Your task to perform on an android device: What are the new products by Samsung? Image 0: 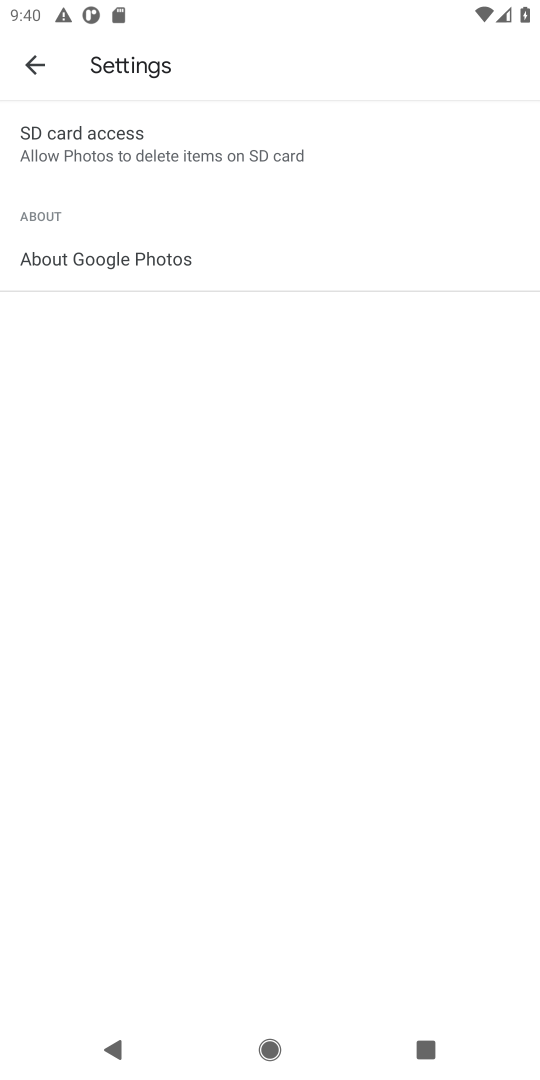
Step 0: type "What are the new products by Samsung?"
Your task to perform on an android device: What are the new products by Samsung? Image 1: 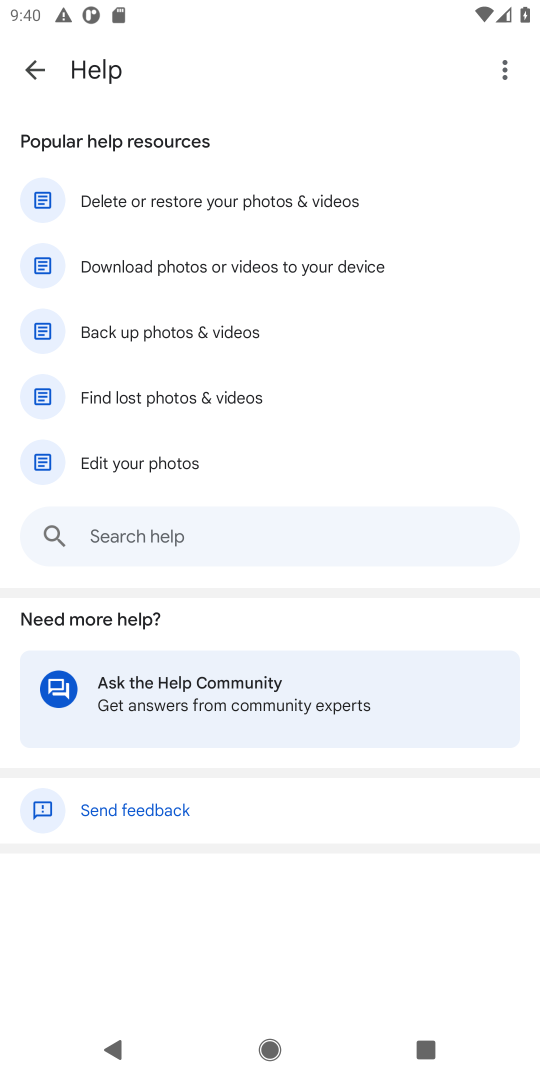
Step 1: type ""
Your task to perform on an android device: What are the new products by Samsung? Image 2: 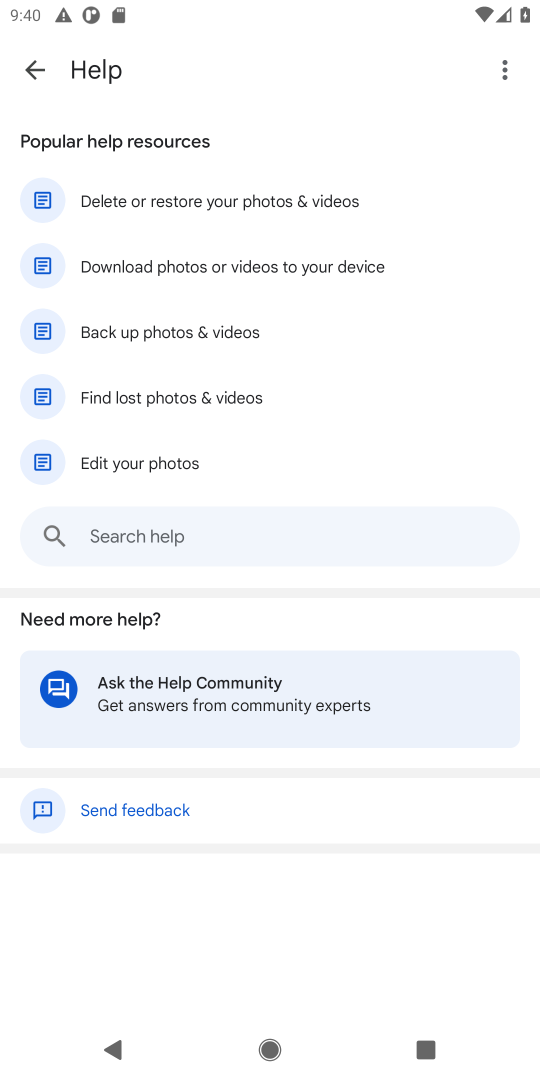
Step 2: press home button
Your task to perform on an android device: What are the new products by Samsung? Image 3: 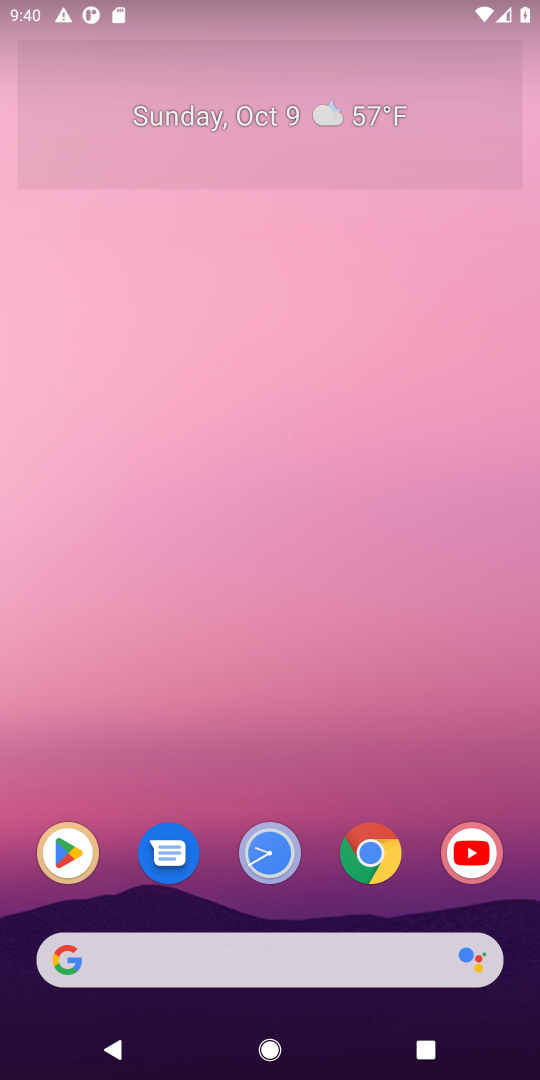
Step 3: click (217, 953)
Your task to perform on an android device: What are the new products by Samsung? Image 4: 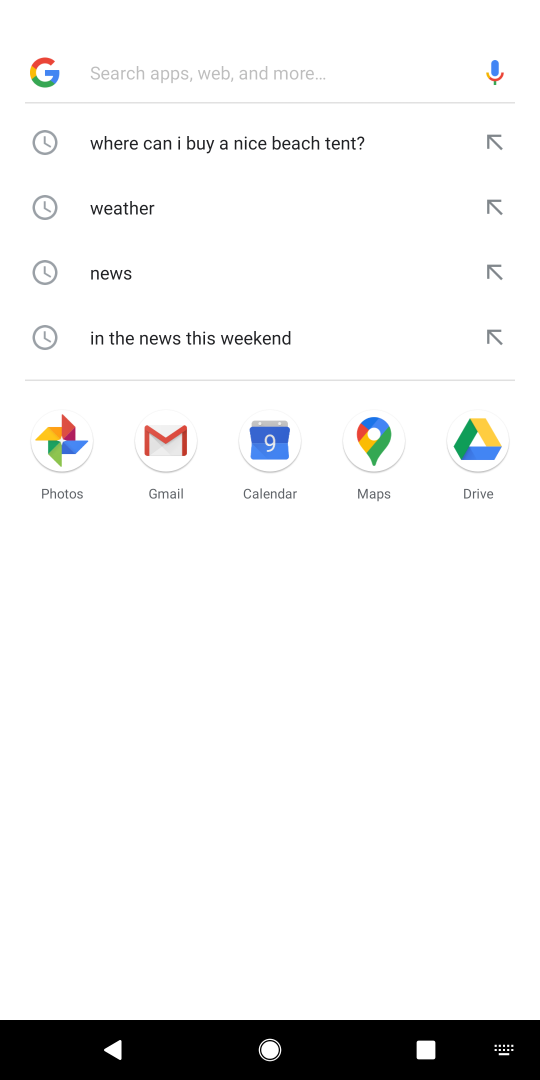
Step 4: type "What are the new products by Samsung?"
Your task to perform on an android device: What are the new products by Samsung? Image 5: 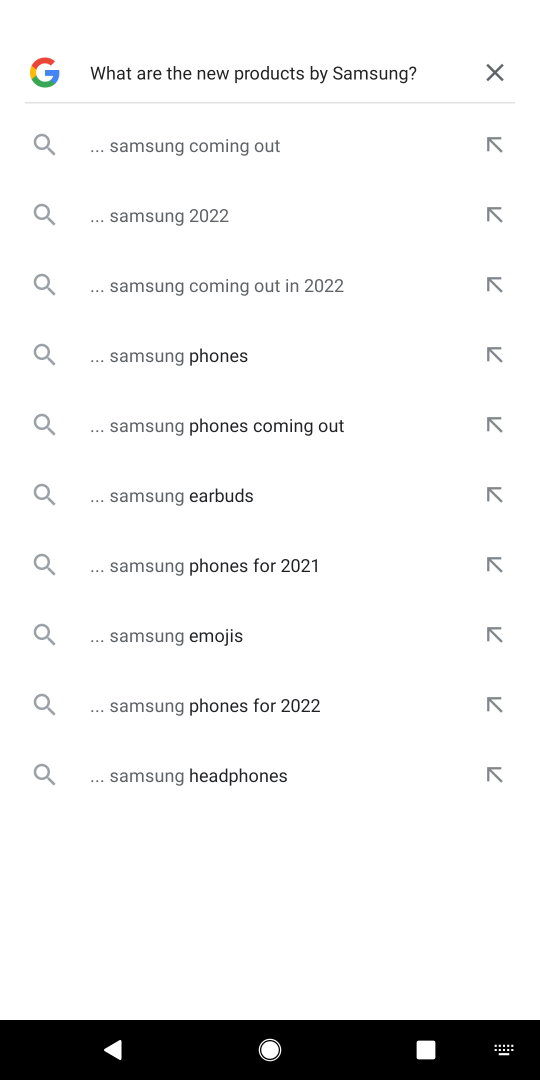
Step 5: type ""
Your task to perform on an android device: What are the new products by Samsung? Image 6: 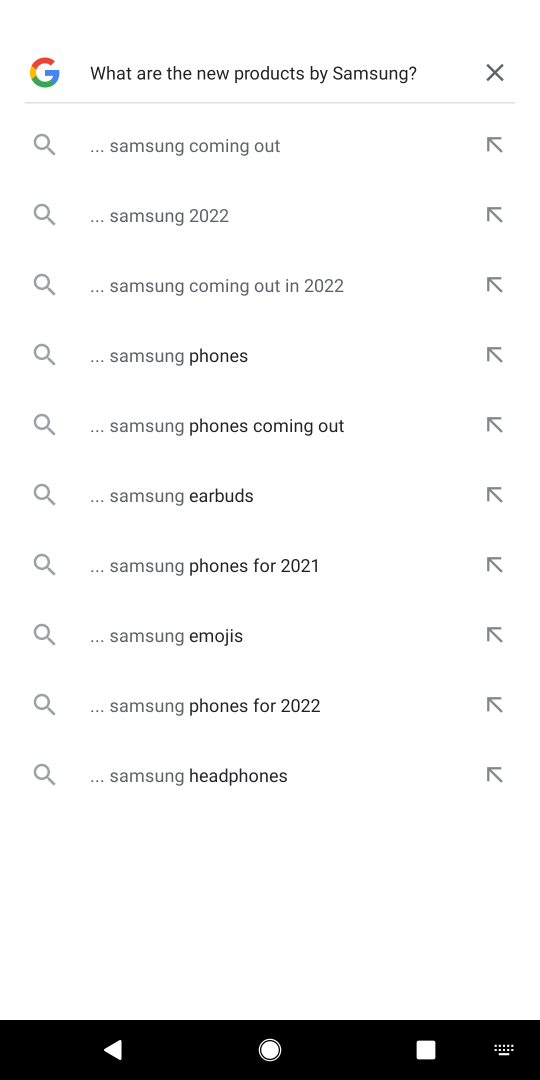
Step 6: press enter
Your task to perform on an android device: What are the new products by Samsung? Image 7: 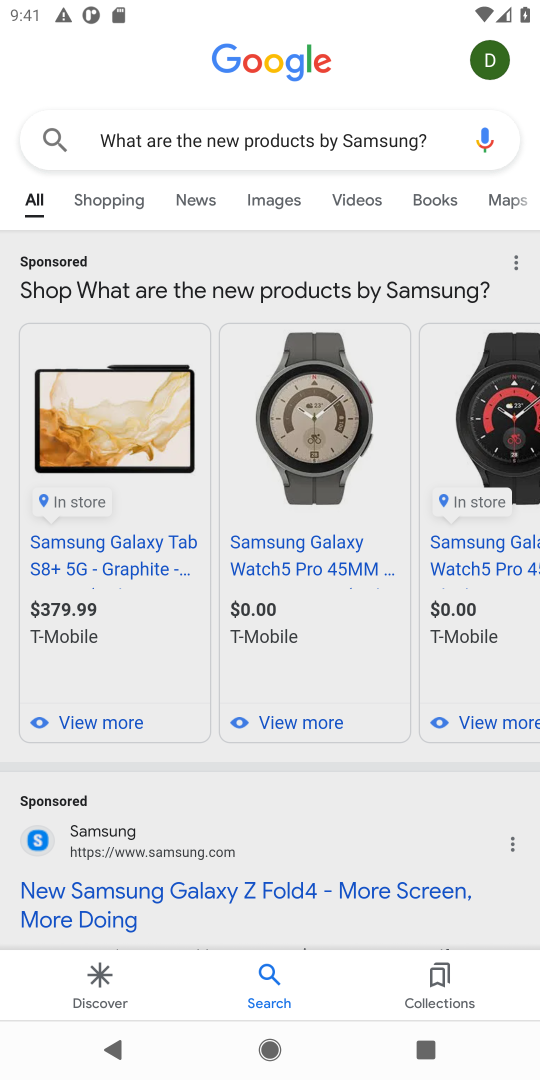
Step 7: drag from (312, 778) to (310, 218)
Your task to perform on an android device: What are the new products by Samsung? Image 8: 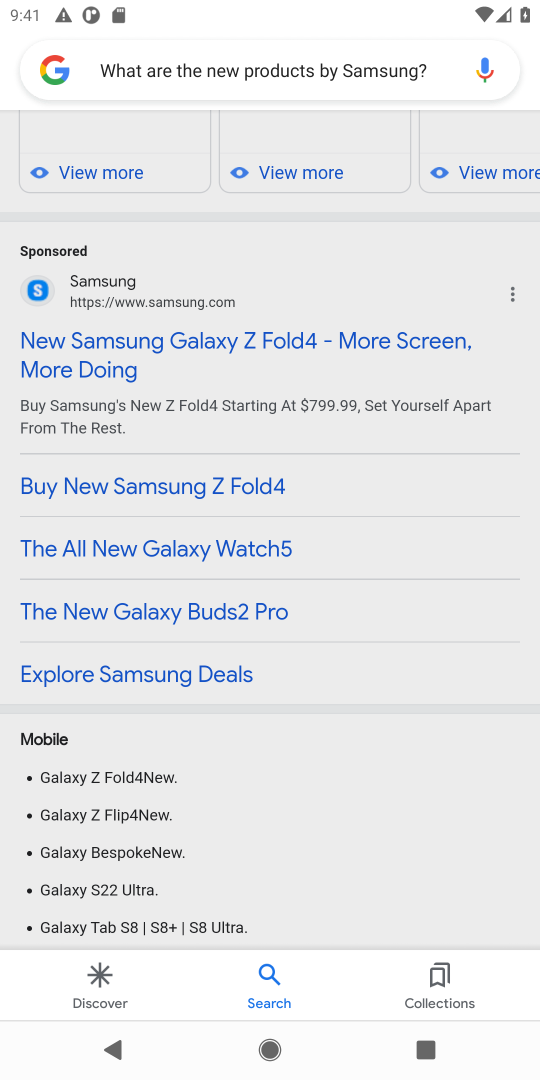
Step 8: drag from (295, 655) to (291, 283)
Your task to perform on an android device: What are the new products by Samsung? Image 9: 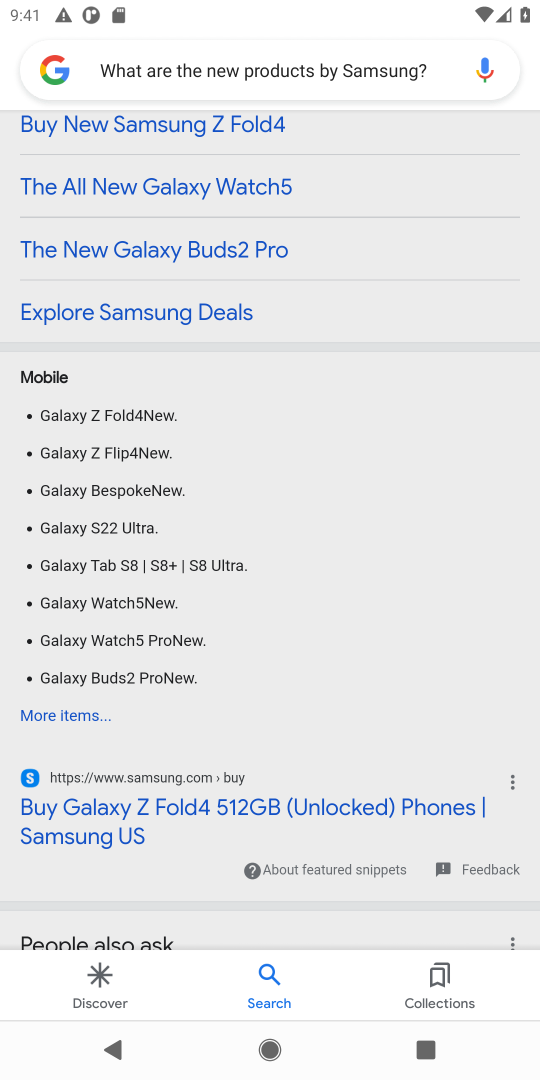
Step 9: drag from (333, 664) to (392, 816)
Your task to perform on an android device: What are the new products by Samsung? Image 10: 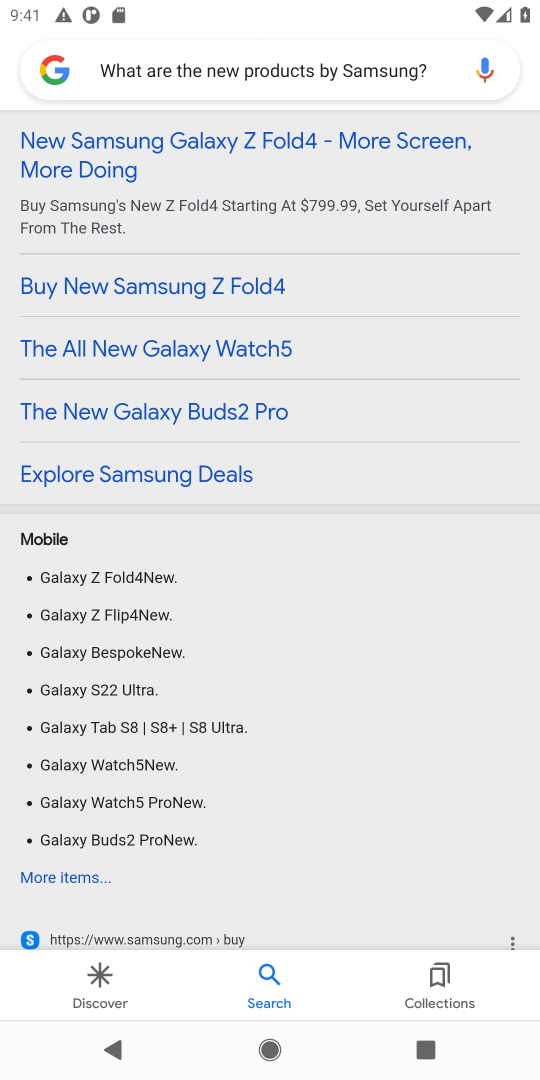
Step 10: drag from (359, 311) to (415, 861)
Your task to perform on an android device: What are the new products by Samsung? Image 11: 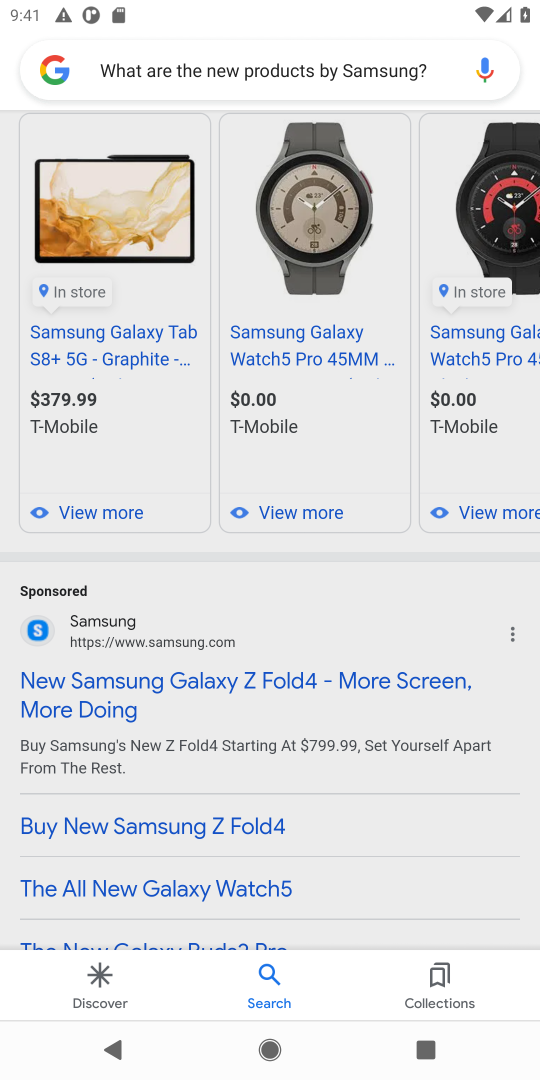
Step 11: drag from (417, 489) to (437, 883)
Your task to perform on an android device: What are the new products by Samsung? Image 12: 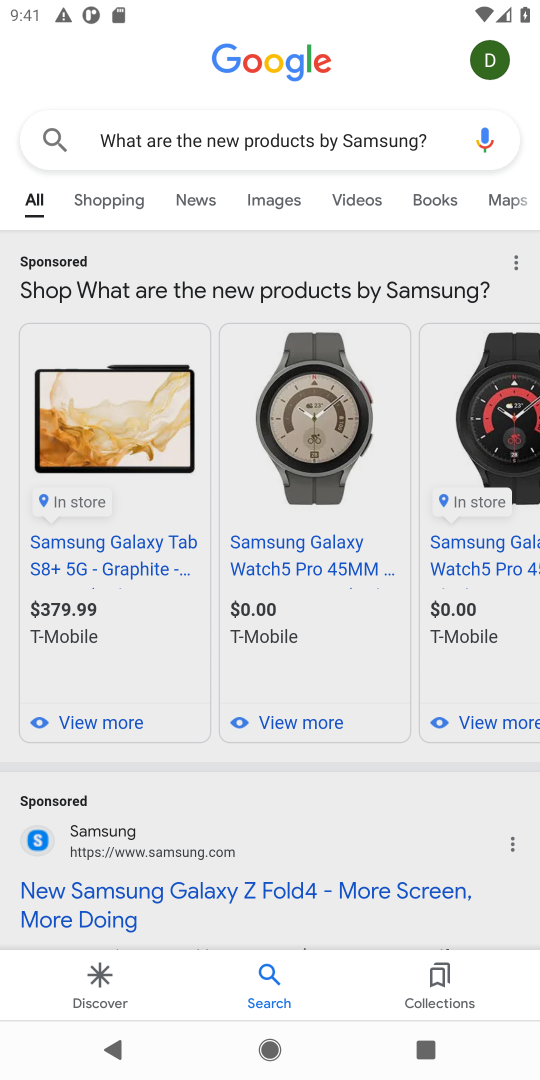
Step 12: drag from (453, 645) to (82, 645)
Your task to perform on an android device: What are the new products by Samsung? Image 13: 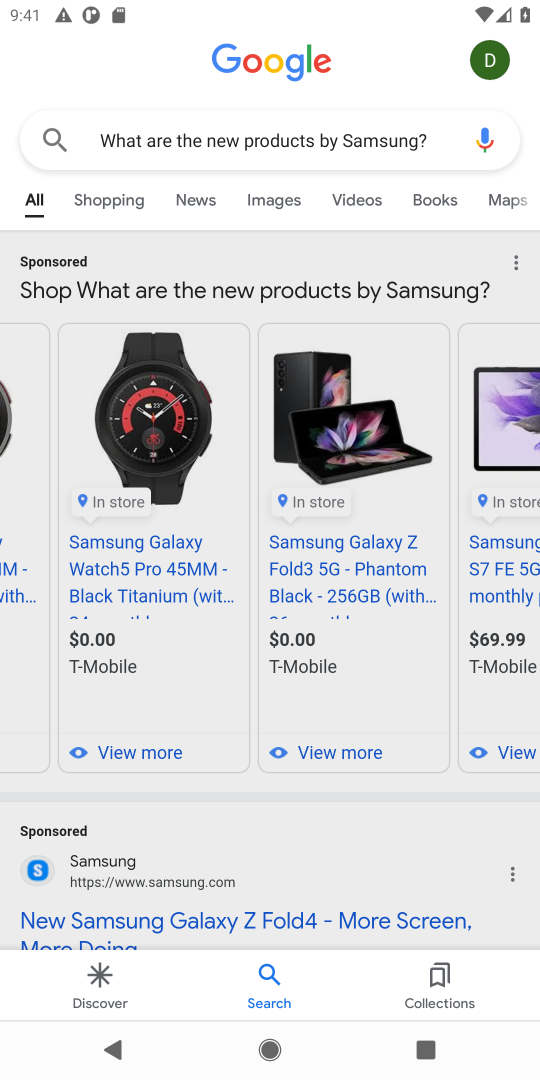
Step 13: drag from (510, 594) to (68, 623)
Your task to perform on an android device: What are the new products by Samsung? Image 14: 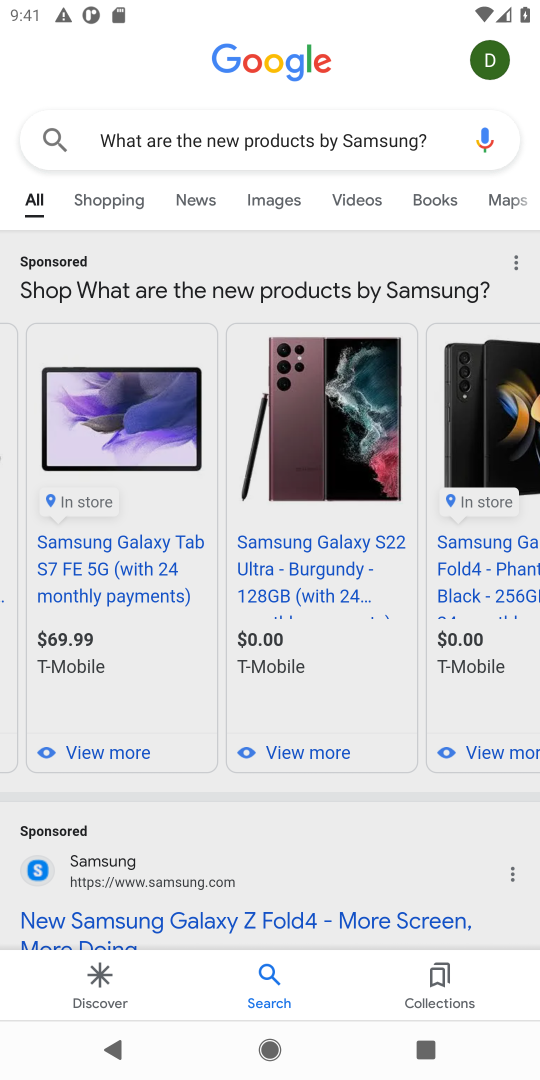
Step 14: drag from (347, 605) to (173, 640)
Your task to perform on an android device: What are the new products by Samsung? Image 15: 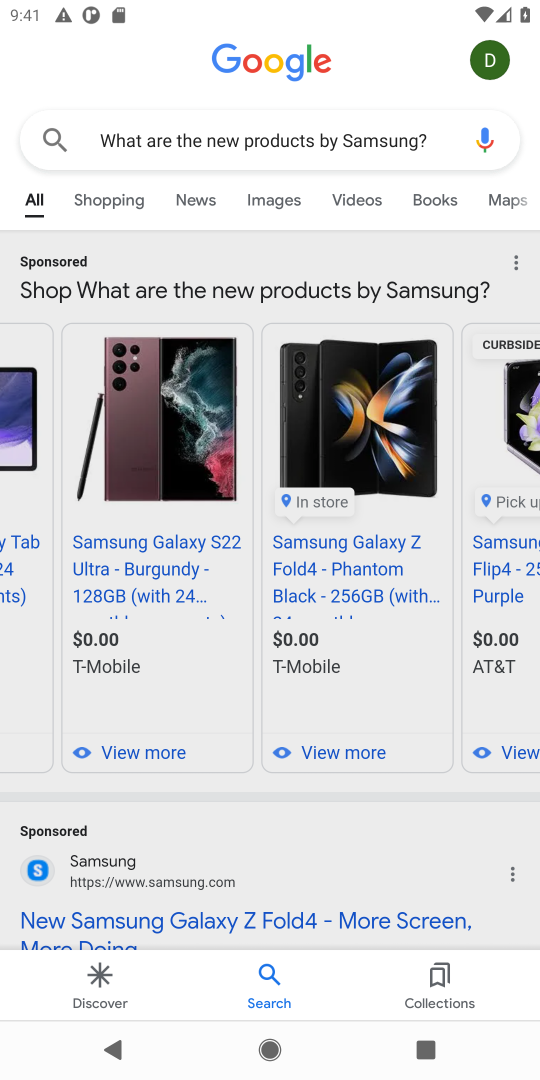
Step 15: click (181, 914)
Your task to perform on an android device: What are the new products by Samsung? Image 16: 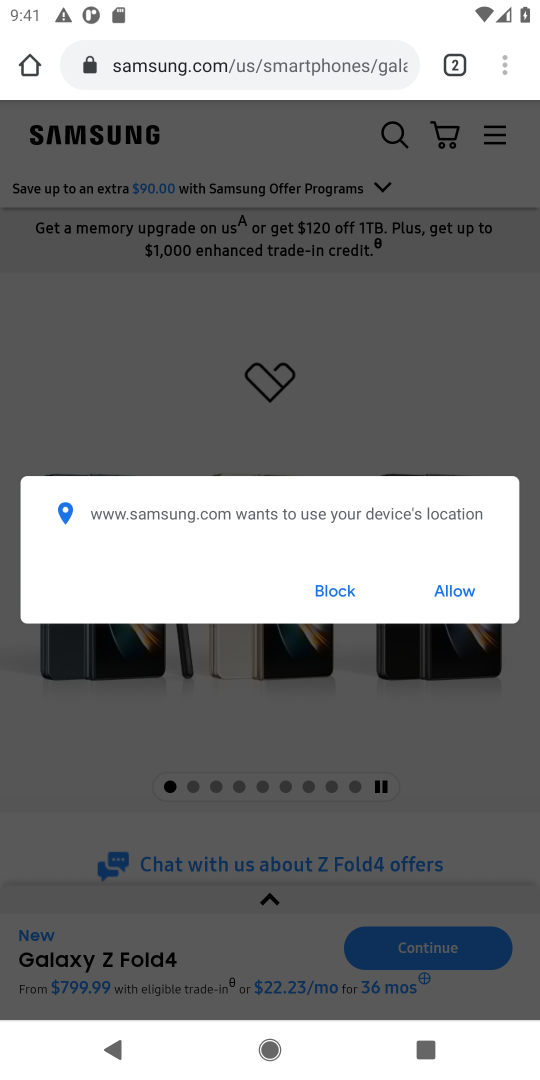
Step 16: click (352, 583)
Your task to perform on an android device: What are the new products by Samsung? Image 17: 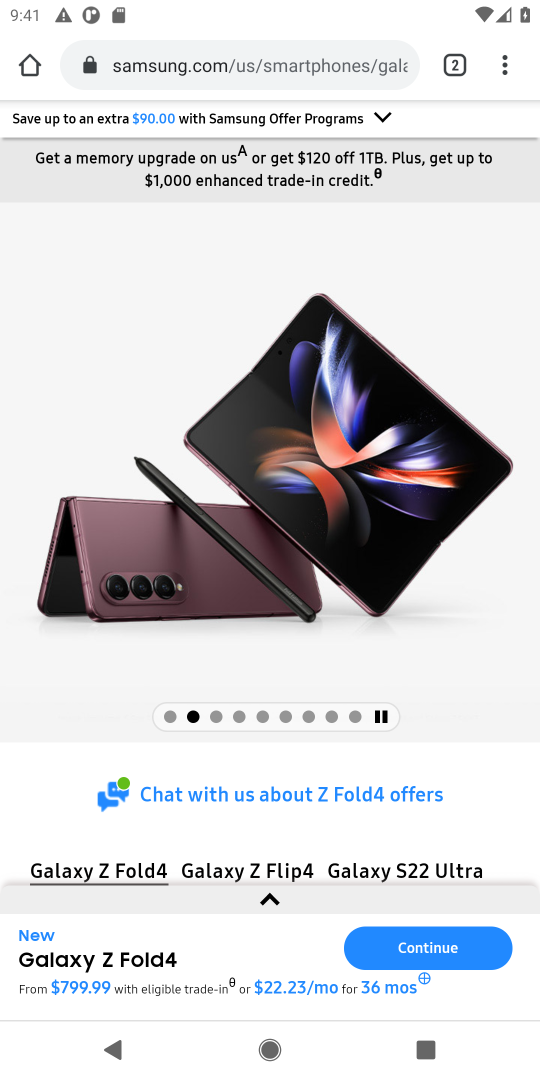
Step 17: drag from (389, 749) to (348, 446)
Your task to perform on an android device: What are the new products by Samsung? Image 18: 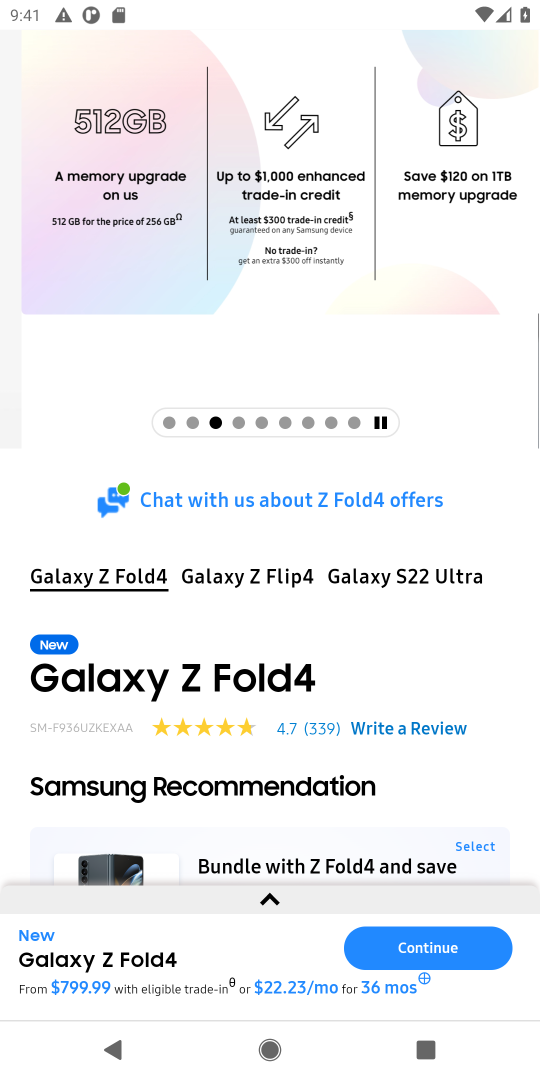
Step 18: drag from (315, 606) to (323, 136)
Your task to perform on an android device: What are the new products by Samsung? Image 19: 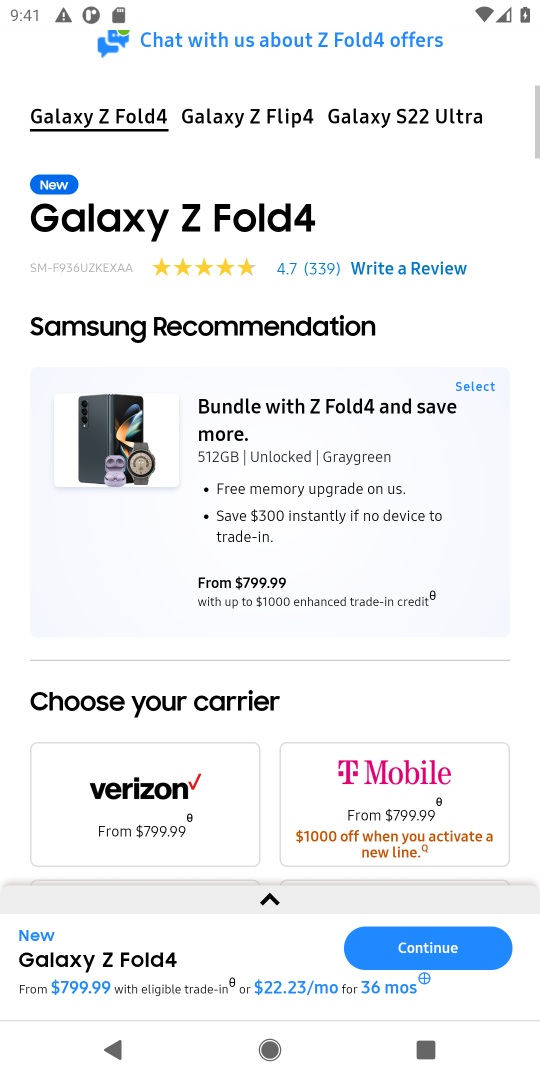
Step 19: drag from (260, 812) to (296, 125)
Your task to perform on an android device: What are the new products by Samsung? Image 20: 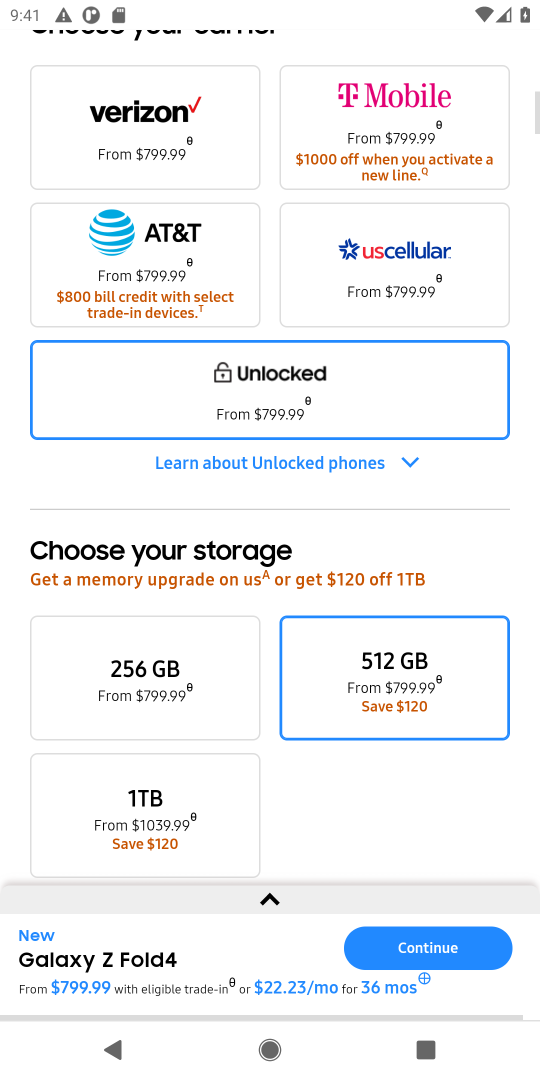
Step 20: drag from (266, 738) to (271, 177)
Your task to perform on an android device: What are the new products by Samsung? Image 21: 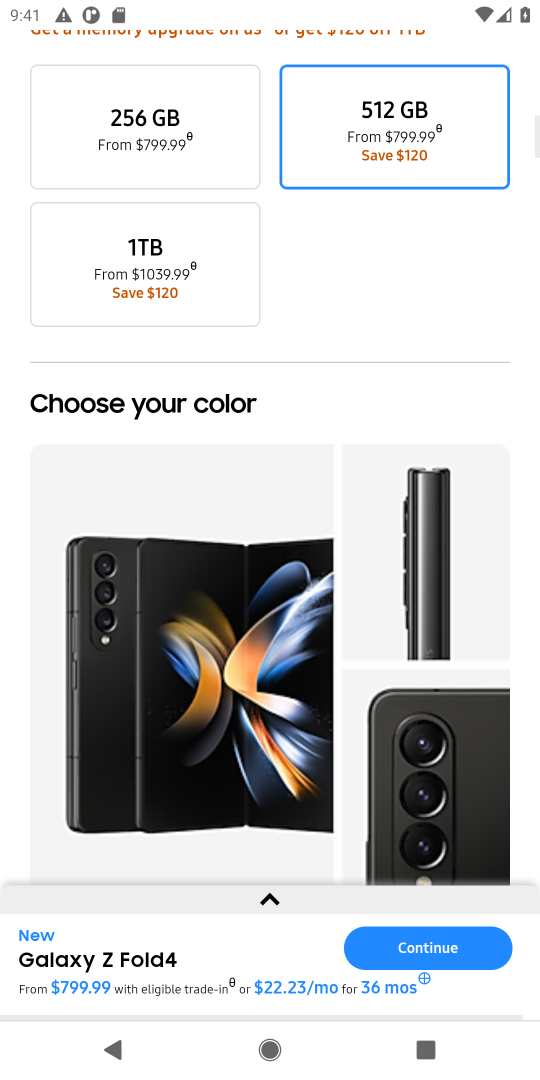
Step 21: drag from (286, 759) to (282, 220)
Your task to perform on an android device: What are the new products by Samsung? Image 22: 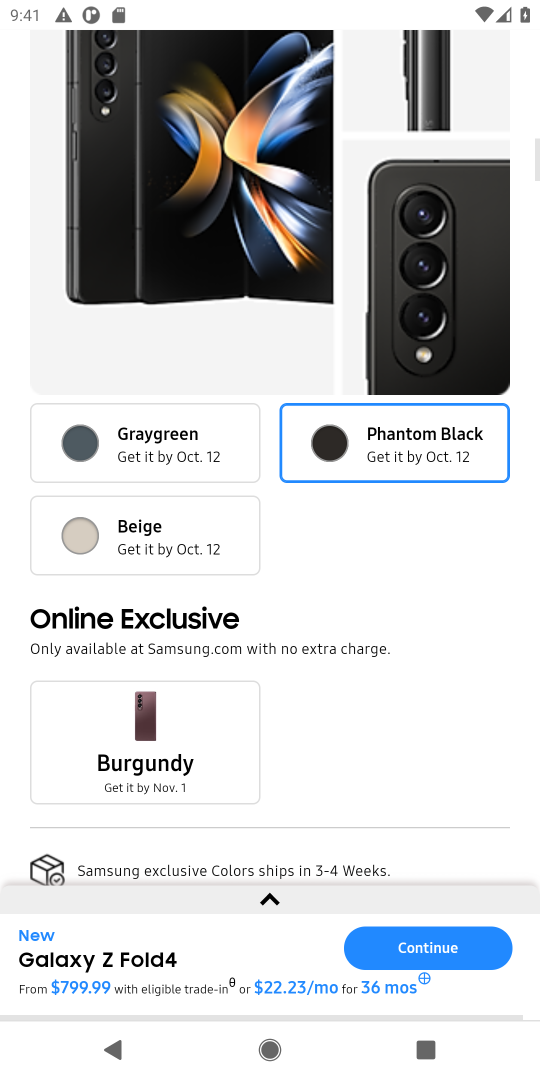
Step 22: drag from (307, 777) to (348, 169)
Your task to perform on an android device: What are the new products by Samsung? Image 23: 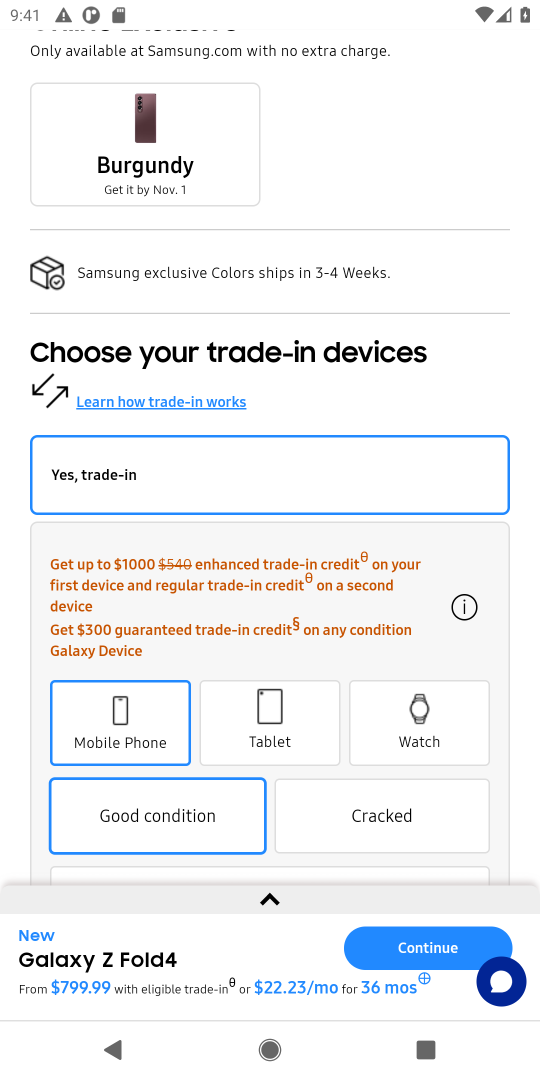
Step 23: drag from (321, 544) to (353, 145)
Your task to perform on an android device: What are the new products by Samsung? Image 24: 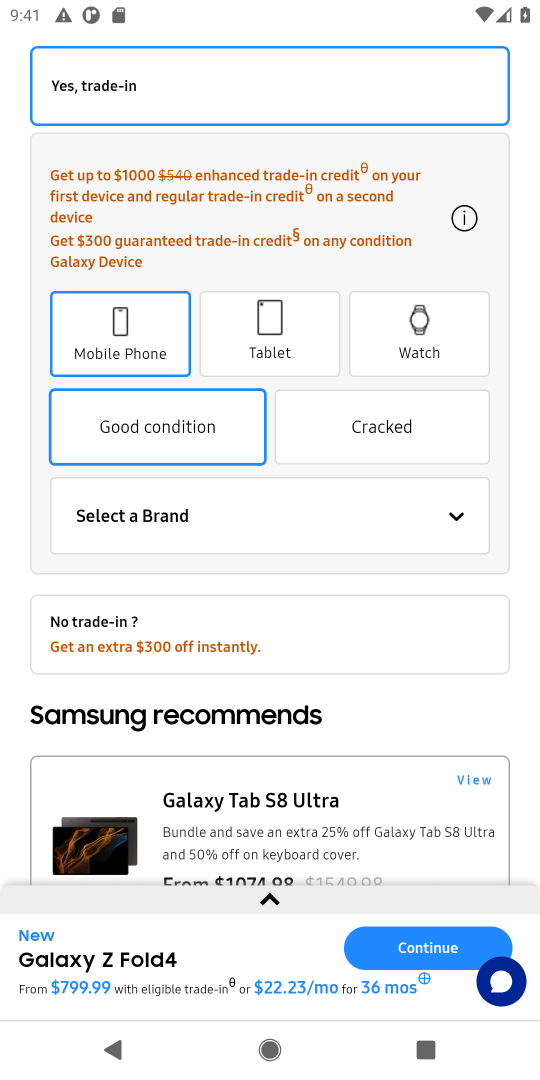
Step 24: drag from (306, 665) to (313, 193)
Your task to perform on an android device: What are the new products by Samsung? Image 25: 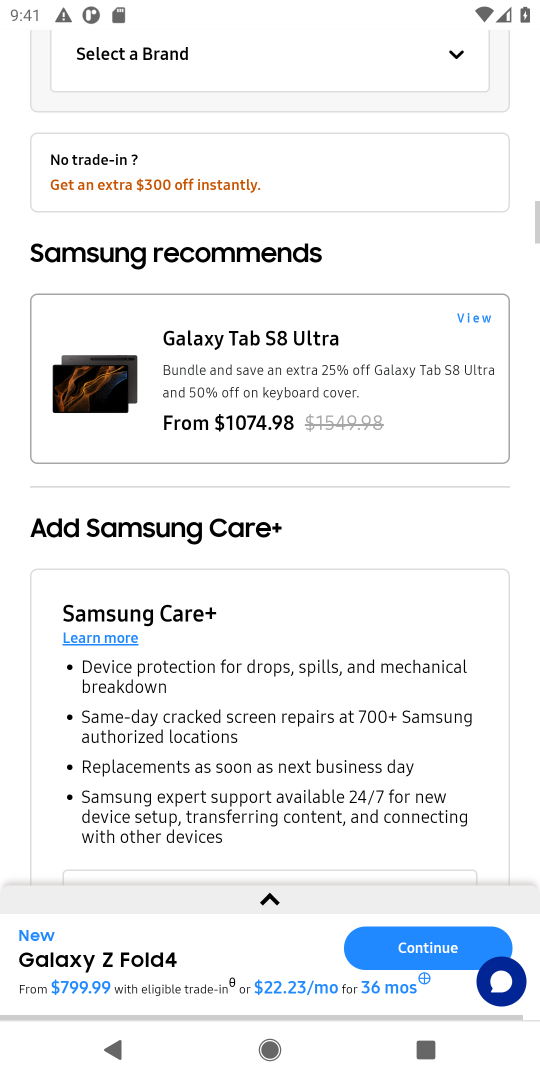
Step 25: drag from (319, 793) to (332, 211)
Your task to perform on an android device: What are the new products by Samsung? Image 26: 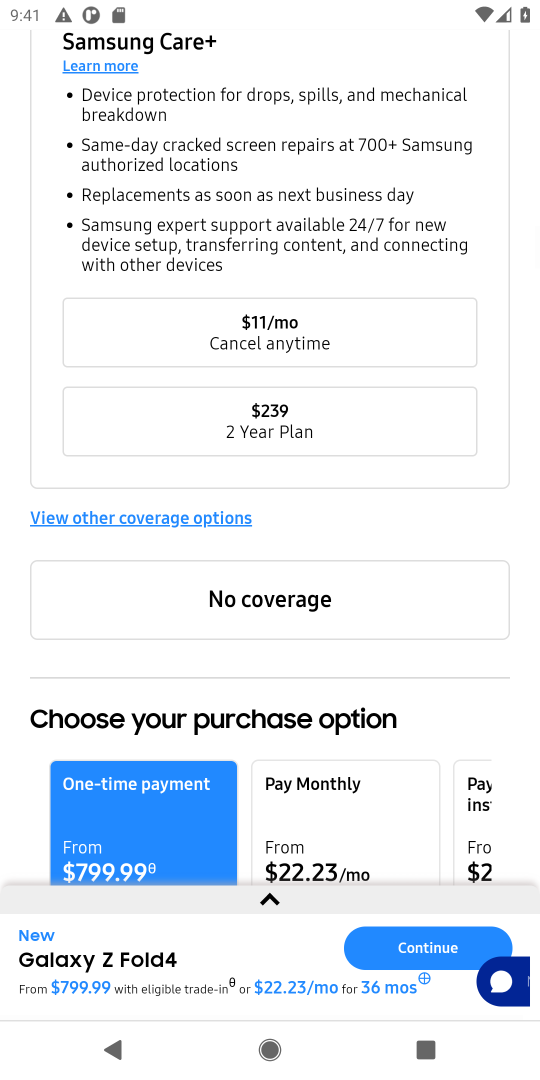
Step 26: drag from (323, 337) to (301, 795)
Your task to perform on an android device: What are the new products by Samsung? Image 27: 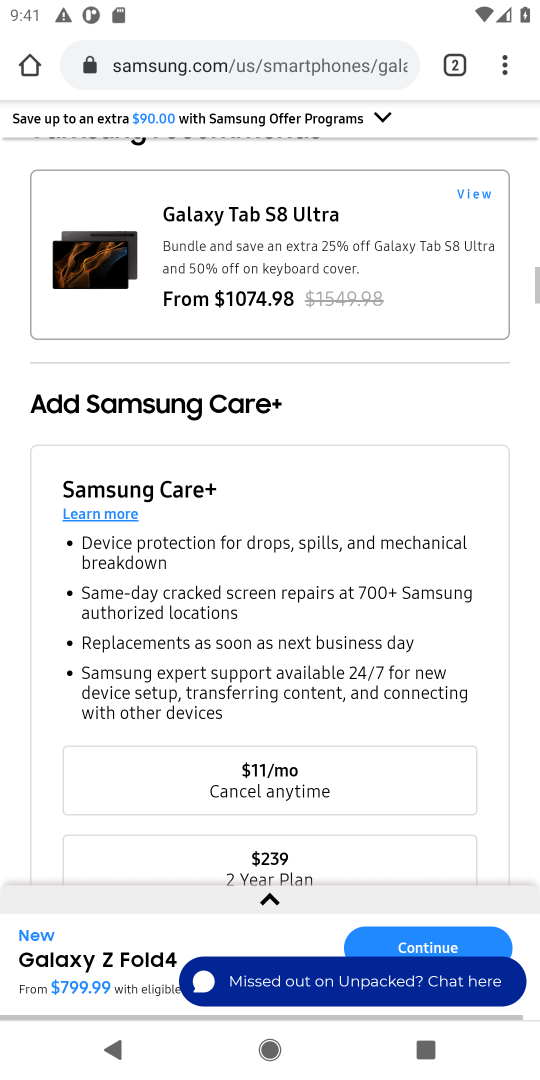
Step 27: drag from (336, 115) to (337, 778)
Your task to perform on an android device: What are the new products by Samsung? Image 28: 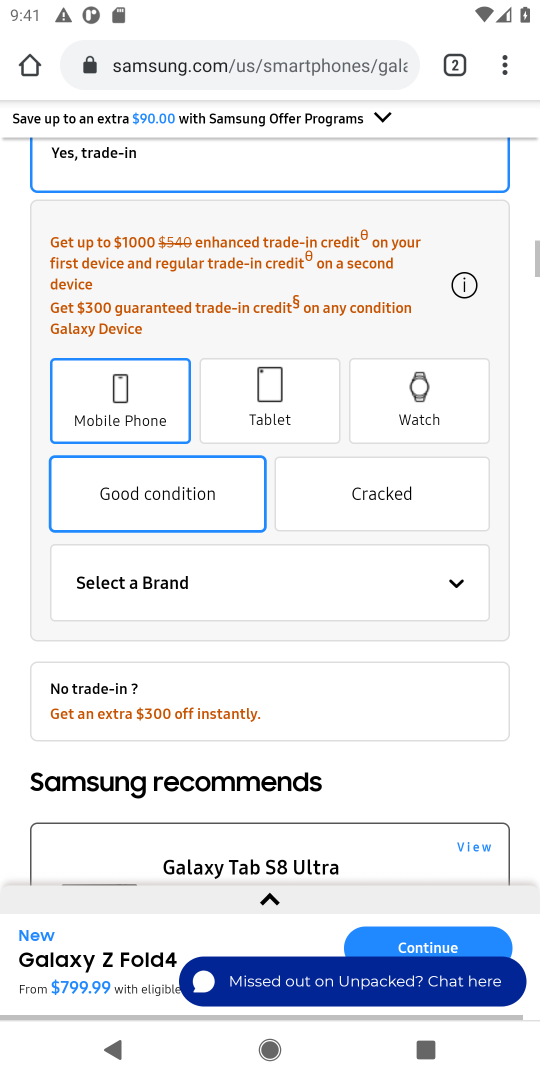
Step 28: drag from (351, 77) to (368, 666)
Your task to perform on an android device: What are the new products by Samsung? Image 29: 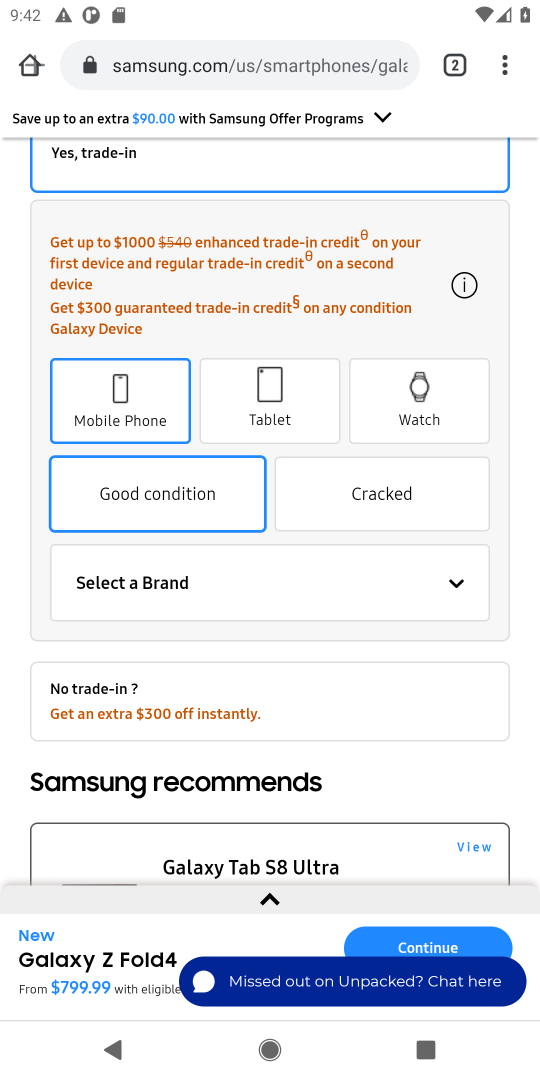
Step 29: drag from (368, 257) to (324, 694)
Your task to perform on an android device: What are the new products by Samsung? Image 30: 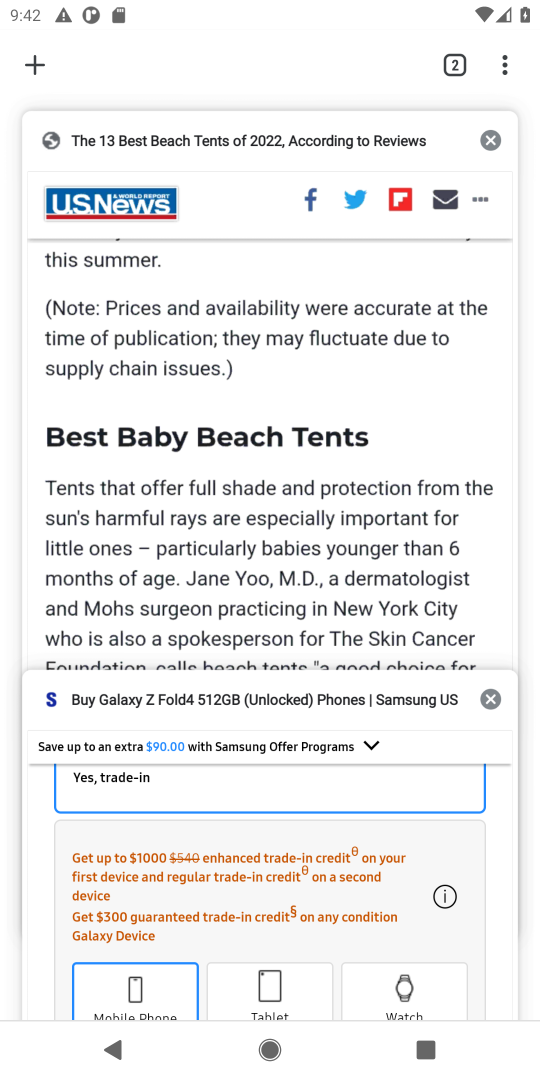
Step 30: drag from (322, 593) to (317, 664)
Your task to perform on an android device: What are the new products by Samsung? Image 31: 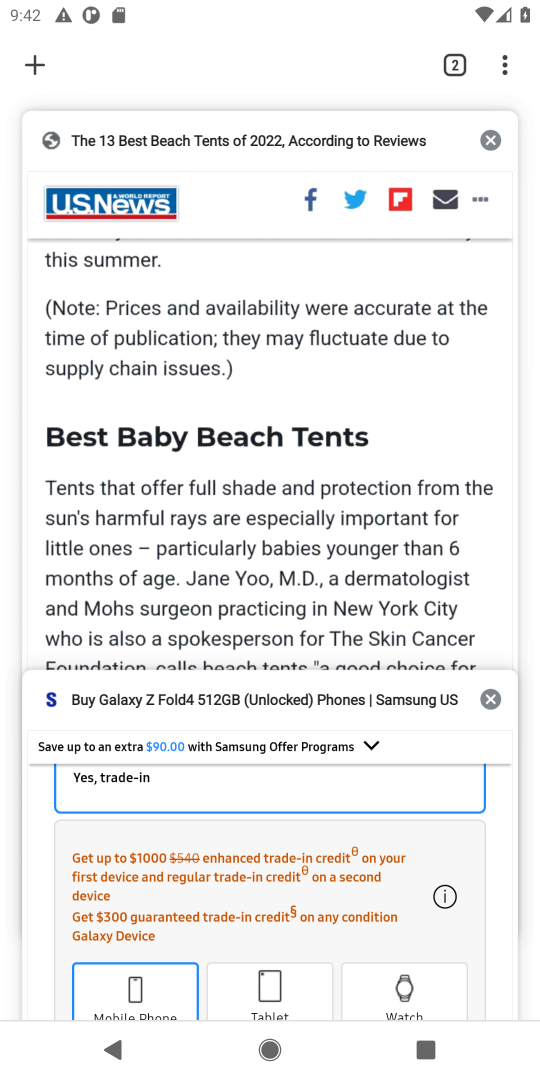
Step 31: drag from (312, 588) to (312, 642)
Your task to perform on an android device: What are the new products by Samsung? Image 32: 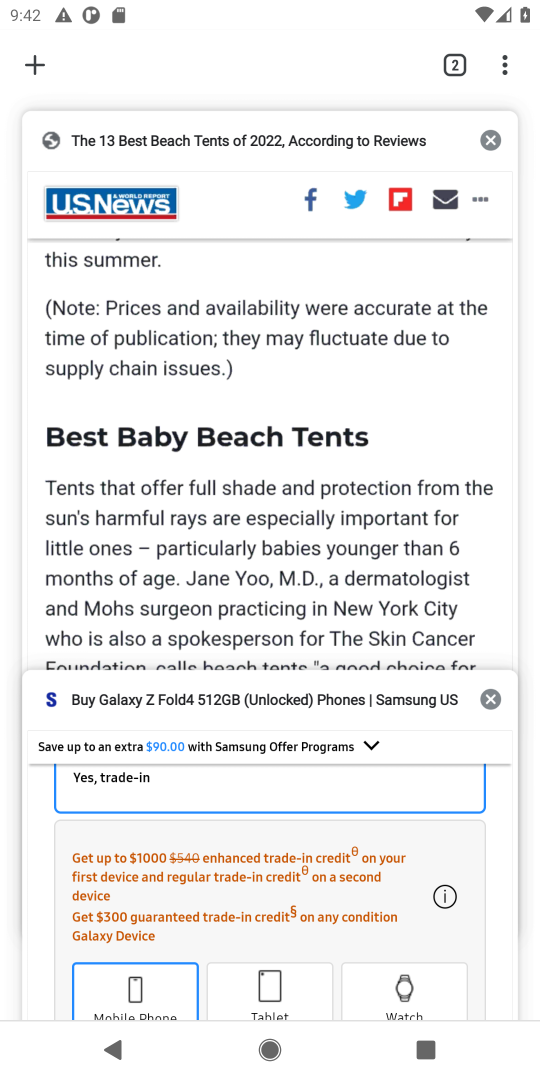
Step 32: drag from (325, 444) to (309, 613)
Your task to perform on an android device: What are the new products by Samsung? Image 33: 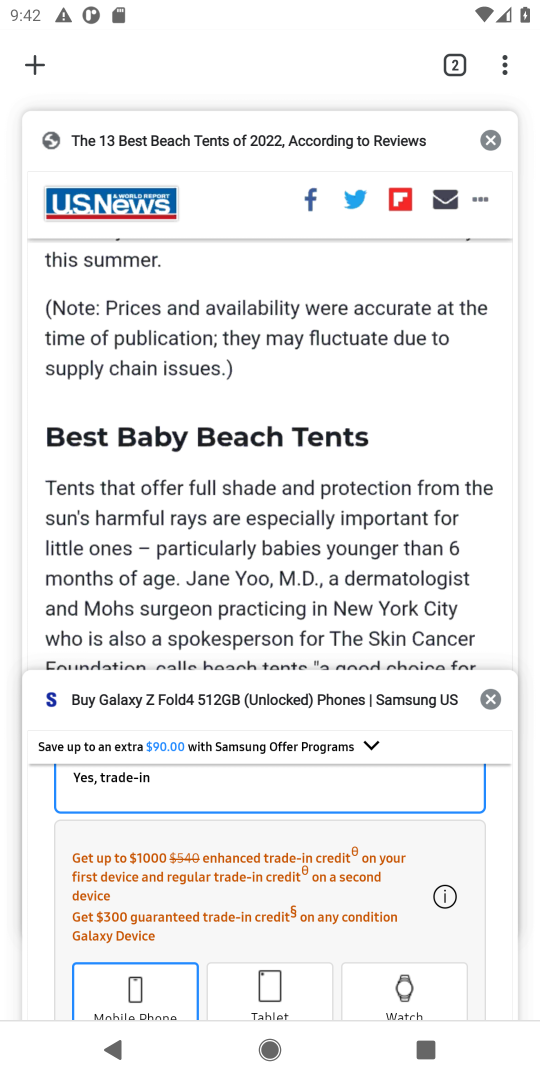
Step 33: drag from (312, 347) to (280, 654)
Your task to perform on an android device: What are the new products by Samsung? Image 34: 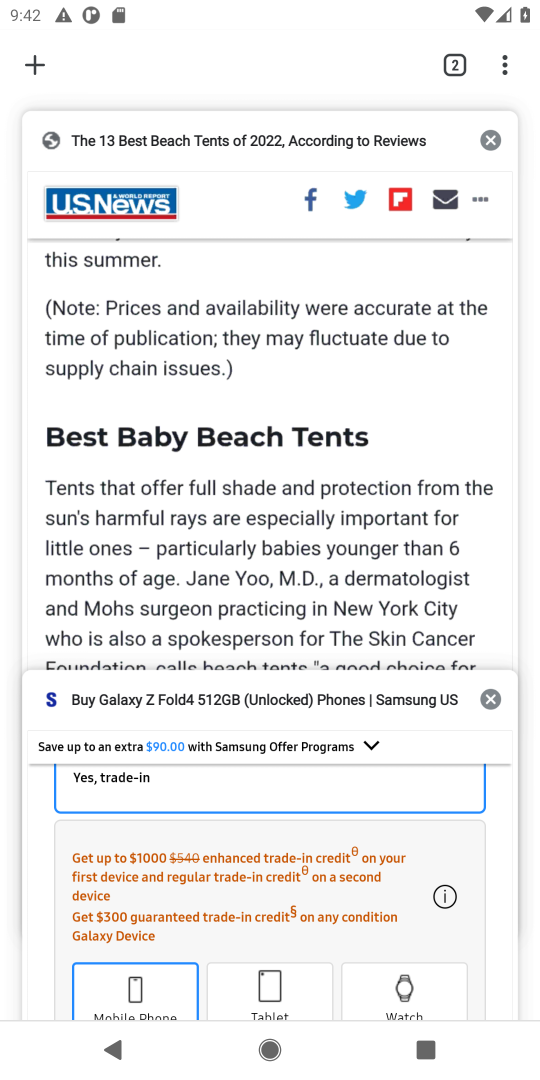
Step 34: drag from (292, 348) to (246, 667)
Your task to perform on an android device: What are the new products by Samsung? Image 35: 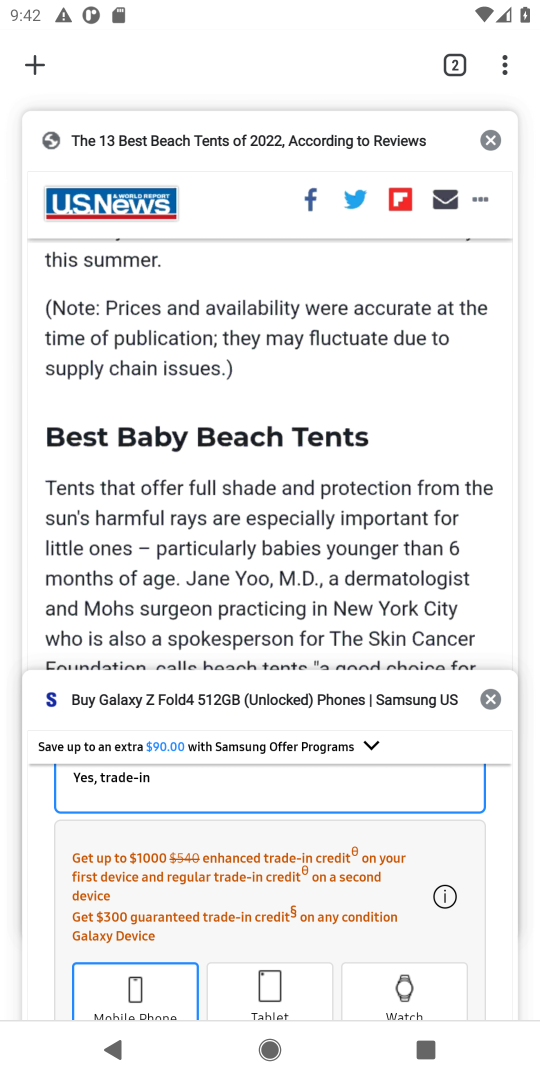
Step 35: drag from (185, 438) to (237, 847)
Your task to perform on an android device: What are the new products by Samsung? Image 36: 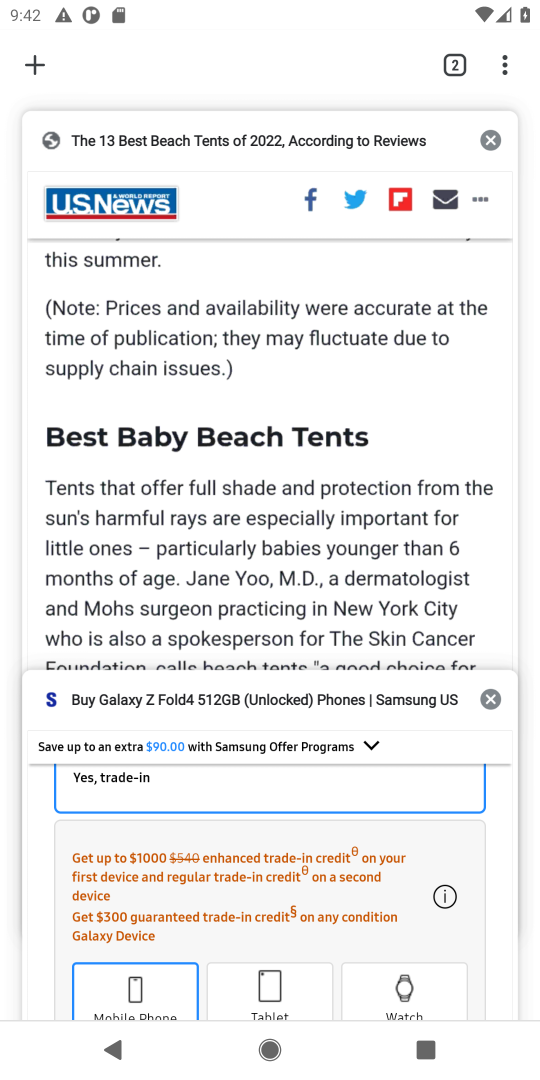
Step 36: drag from (259, 806) to (265, 388)
Your task to perform on an android device: What are the new products by Samsung? Image 37: 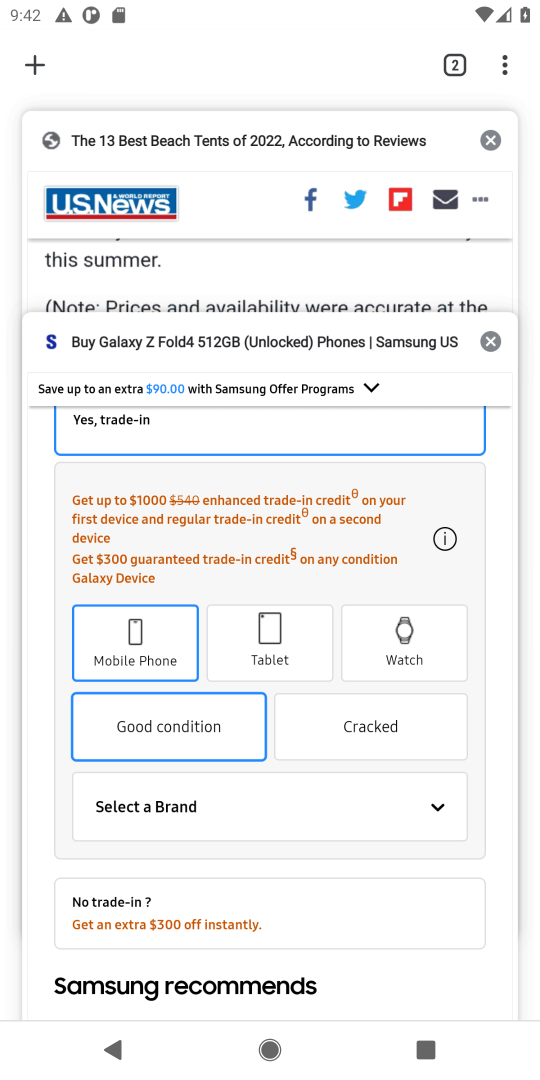
Step 37: press back button
Your task to perform on an android device: What are the new products by Samsung? Image 38: 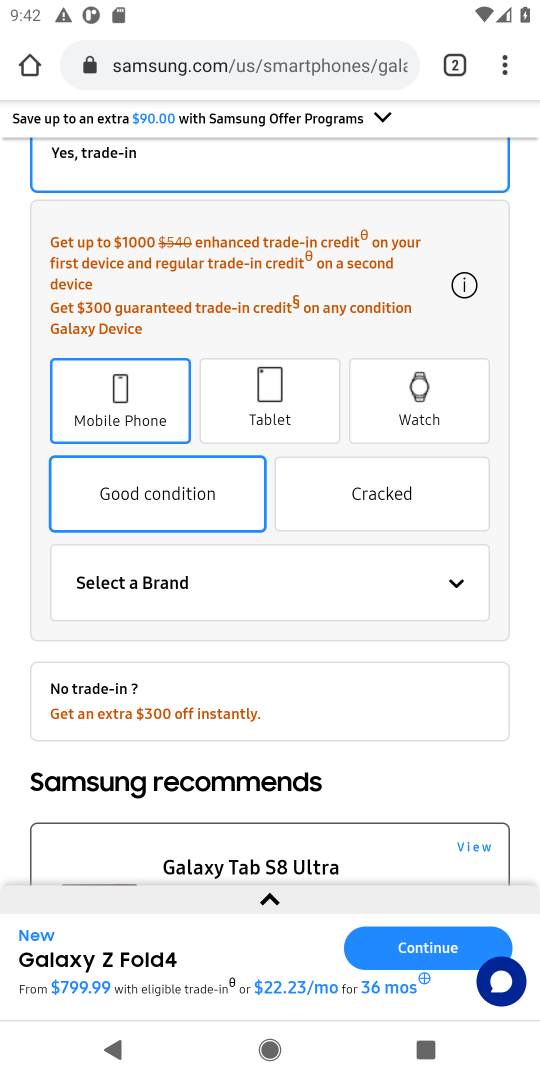
Step 38: drag from (350, 643) to (369, 255)
Your task to perform on an android device: What are the new products by Samsung? Image 39: 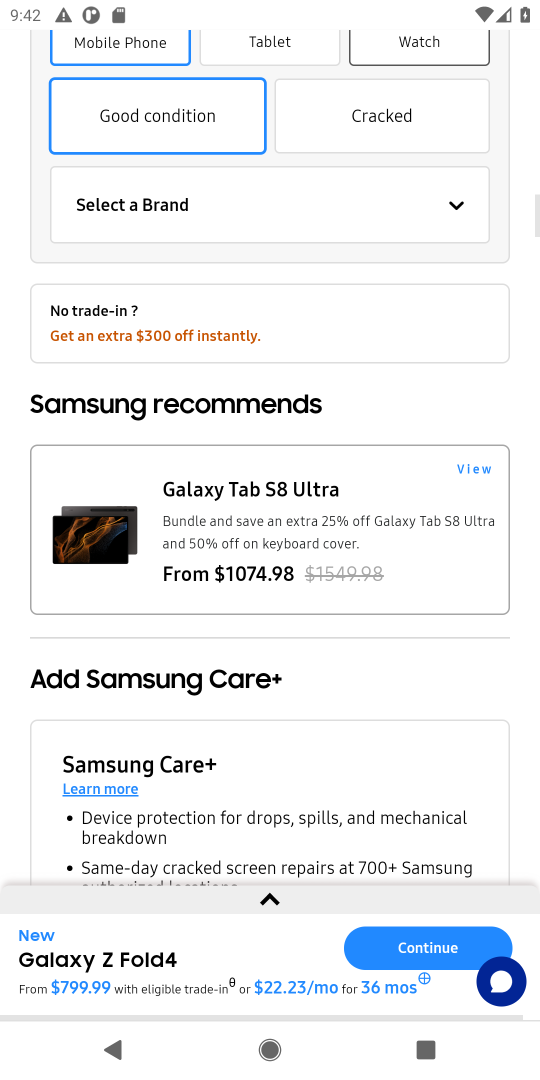
Step 39: press back button
Your task to perform on an android device: What are the new products by Samsung? Image 40: 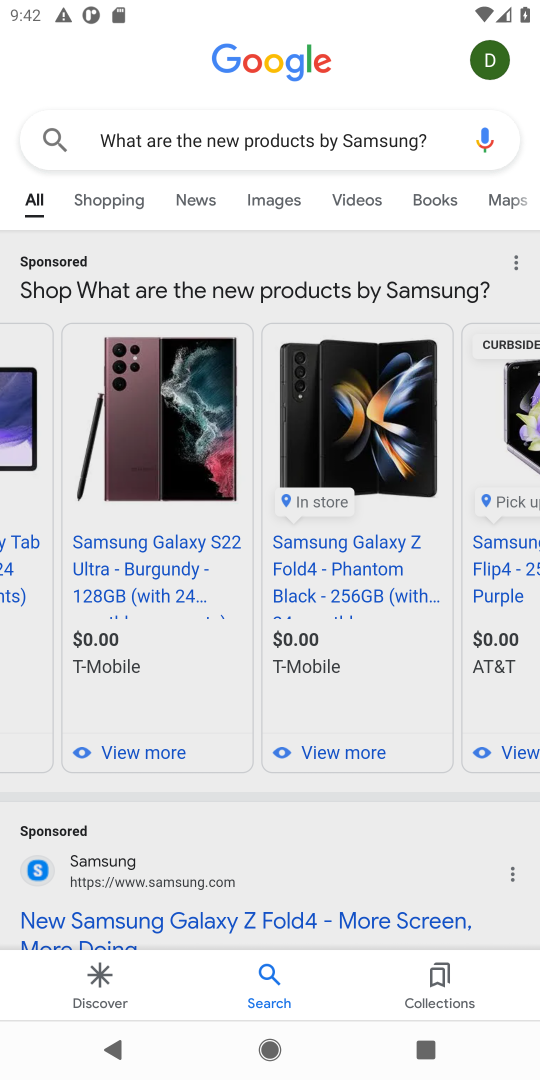
Step 40: drag from (143, 816) to (142, 159)
Your task to perform on an android device: What are the new products by Samsung? Image 41: 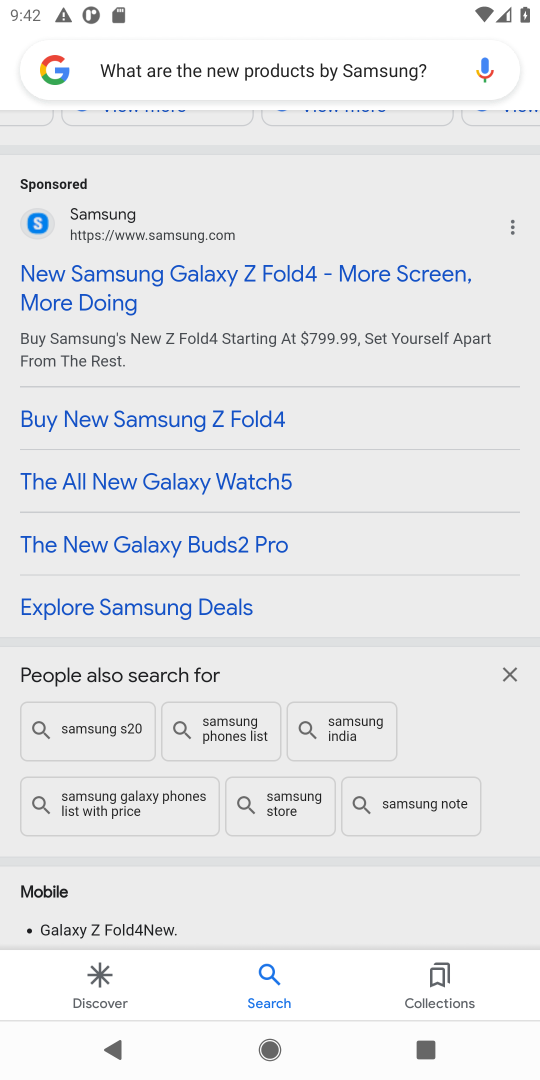
Step 41: drag from (343, 893) to (353, 273)
Your task to perform on an android device: What are the new products by Samsung? Image 42: 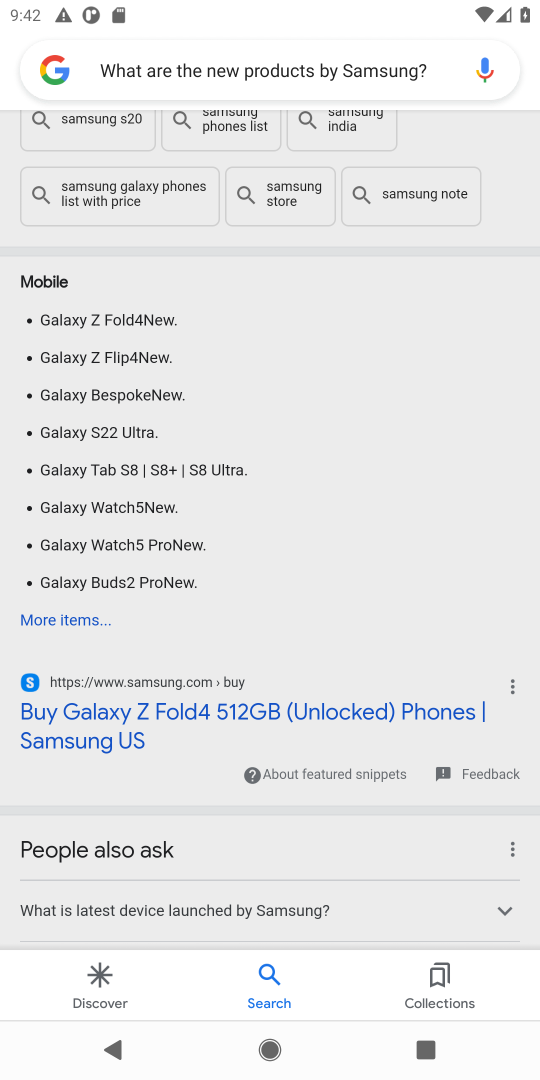
Step 42: drag from (407, 743) to (339, 153)
Your task to perform on an android device: What are the new products by Samsung? Image 43: 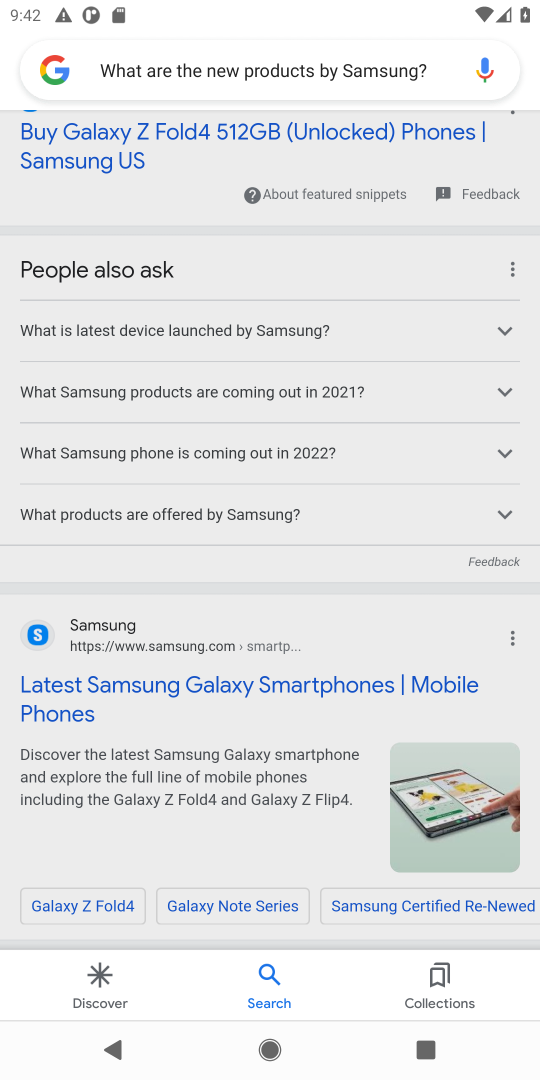
Step 43: click (218, 687)
Your task to perform on an android device: What are the new products by Samsung? Image 44: 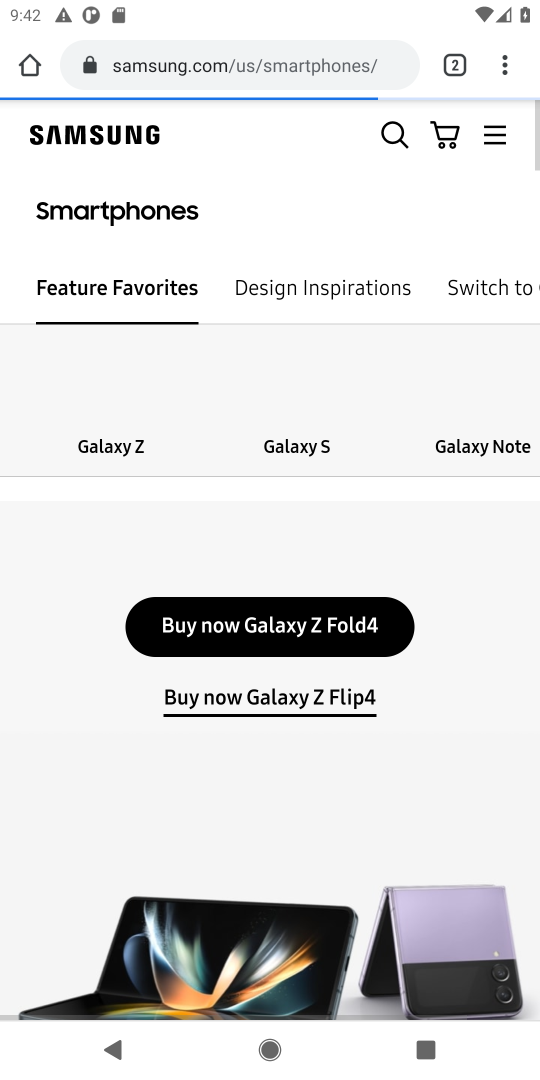
Step 44: drag from (292, 691) to (246, 320)
Your task to perform on an android device: What are the new products by Samsung? Image 45: 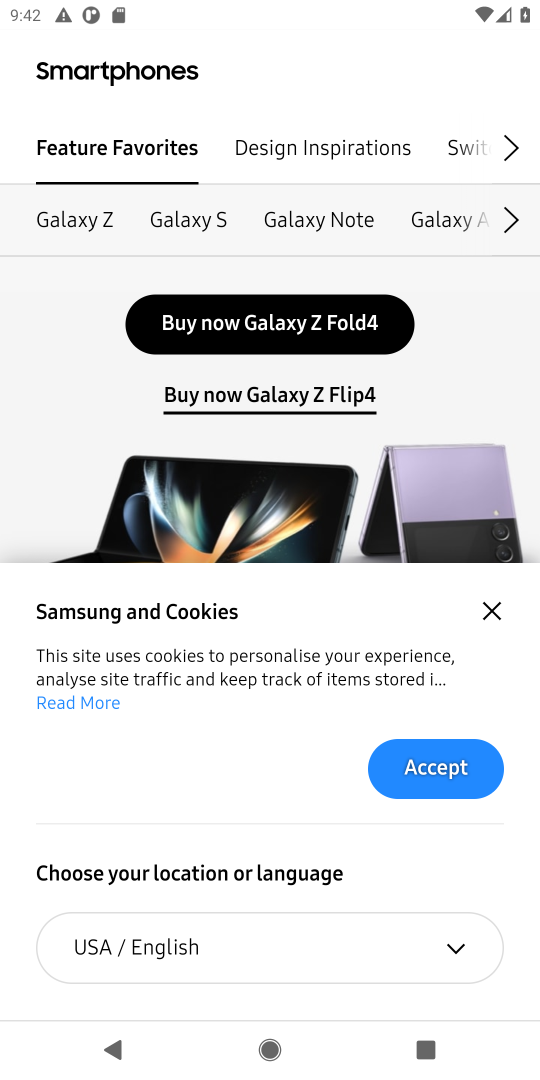
Step 45: click (495, 582)
Your task to perform on an android device: What are the new products by Samsung? Image 46: 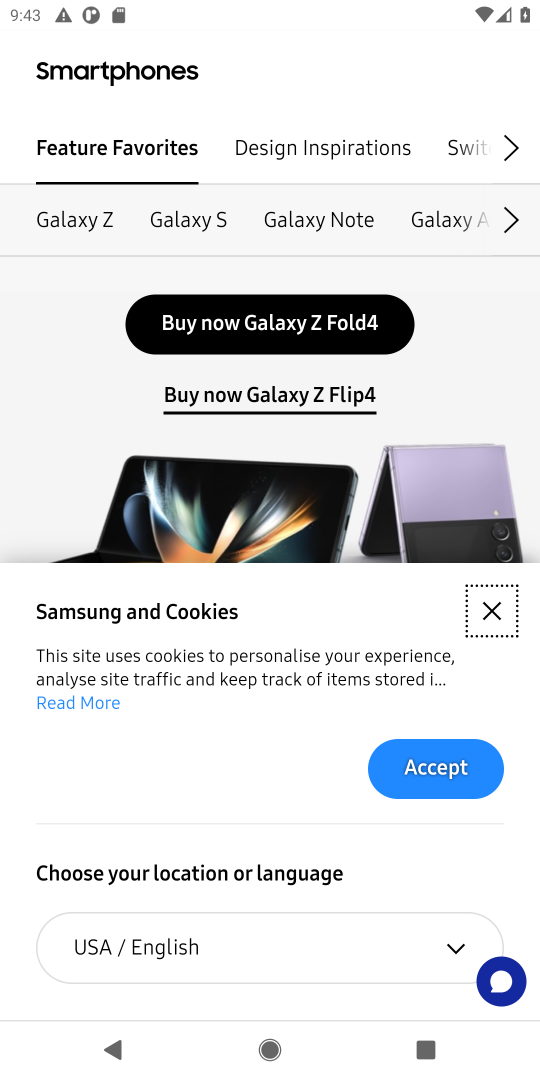
Step 46: click (478, 622)
Your task to perform on an android device: What are the new products by Samsung? Image 47: 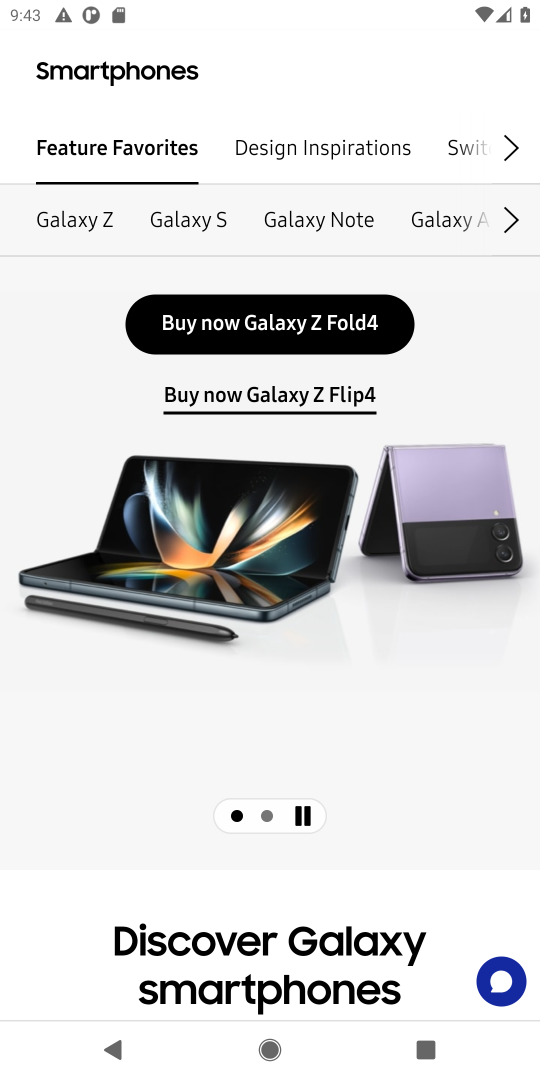
Step 47: task complete